Your task to perform on an android device: turn on wifi Image 0: 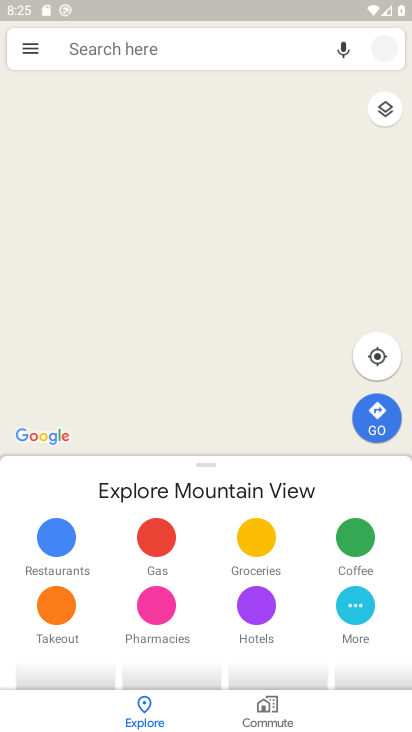
Step 0: click (341, 623)
Your task to perform on an android device: turn on wifi Image 1: 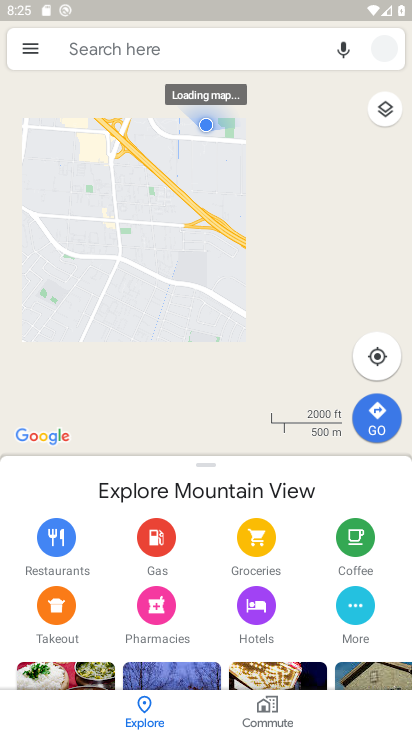
Step 1: press home button
Your task to perform on an android device: turn on wifi Image 2: 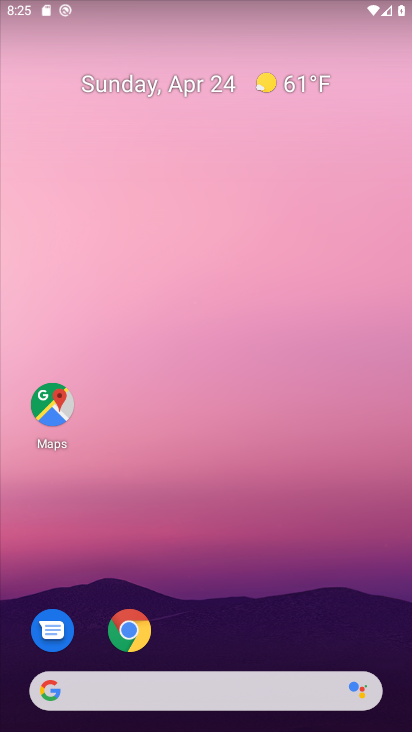
Step 2: drag from (335, 621) to (352, 124)
Your task to perform on an android device: turn on wifi Image 3: 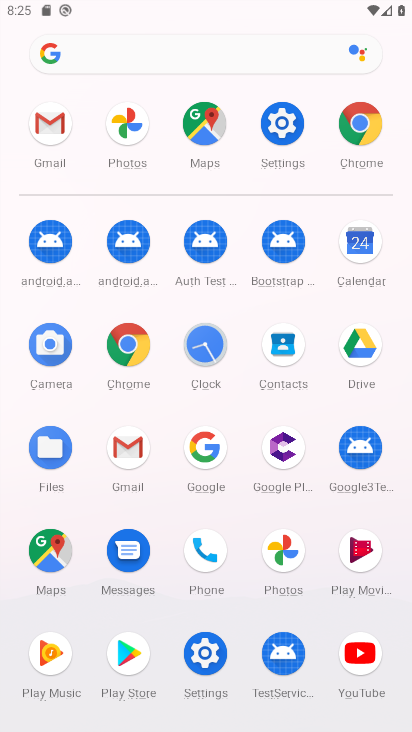
Step 3: click (277, 125)
Your task to perform on an android device: turn on wifi Image 4: 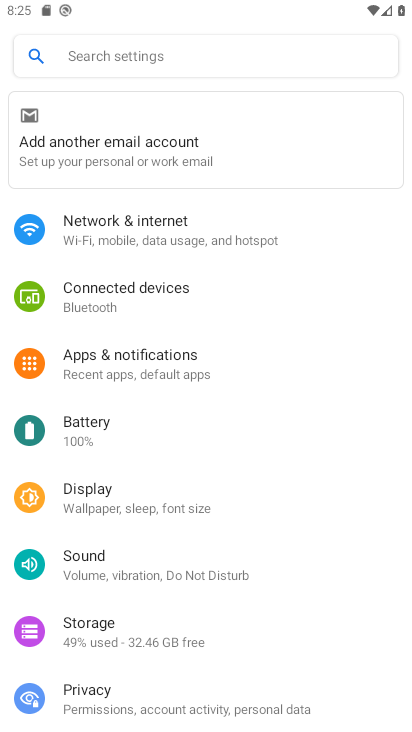
Step 4: click (177, 229)
Your task to perform on an android device: turn on wifi Image 5: 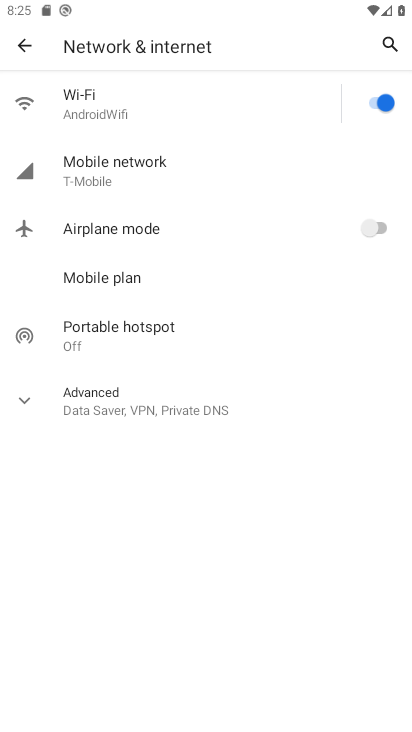
Step 5: task complete